Your task to perform on an android device: clear all cookies in the chrome app Image 0: 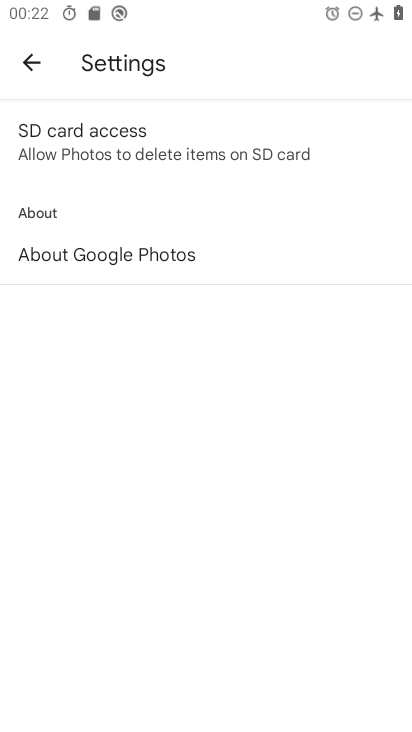
Step 0: press home button
Your task to perform on an android device: clear all cookies in the chrome app Image 1: 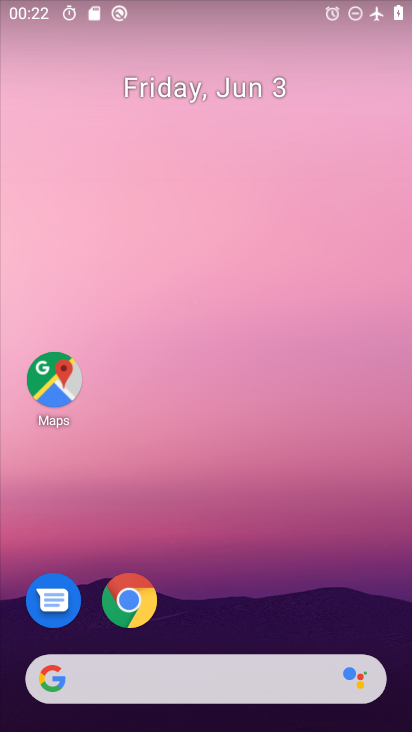
Step 1: click (131, 599)
Your task to perform on an android device: clear all cookies in the chrome app Image 2: 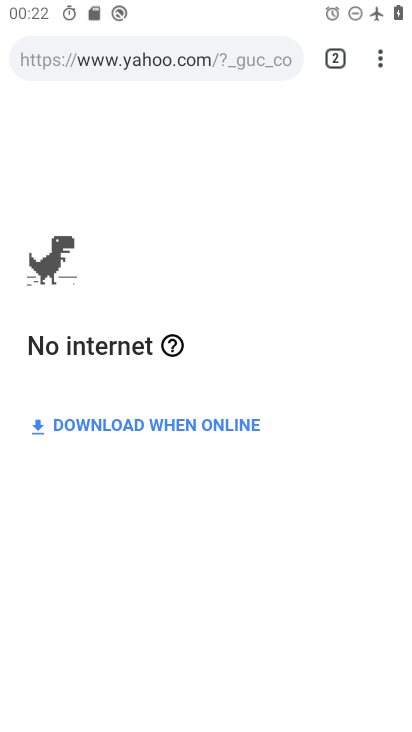
Step 2: click (379, 56)
Your task to perform on an android device: clear all cookies in the chrome app Image 3: 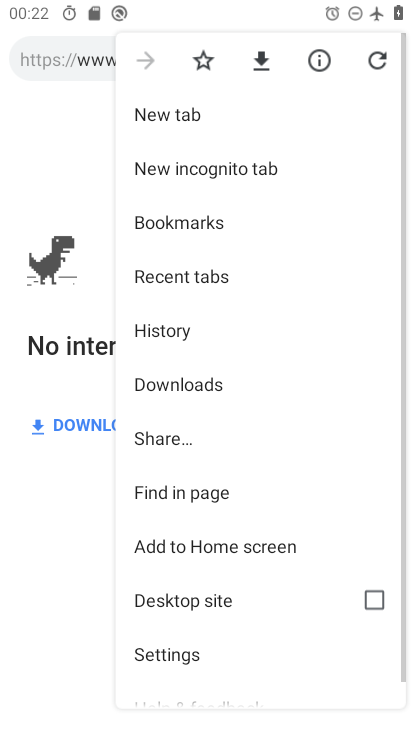
Step 3: click (177, 654)
Your task to perform on an android device: clear all cookies in the chrome app Image 4: 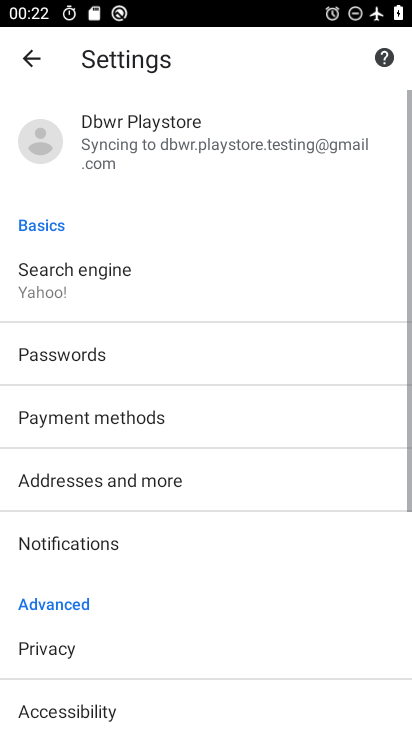
Step 4: click (89, 646)
Your task to perform on an android device: clear all cookies in the chrome app Image 5: 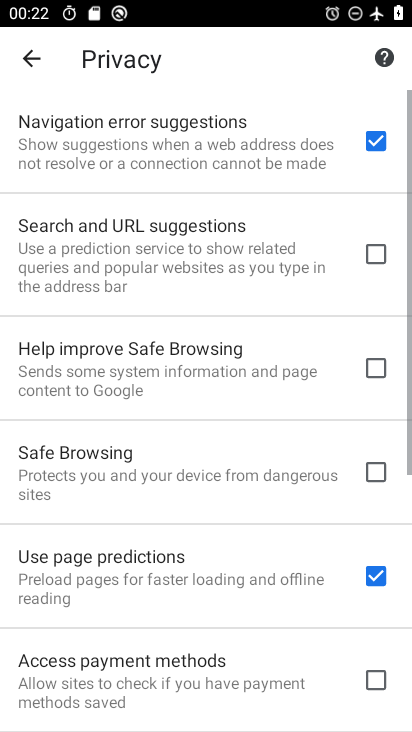
Step 5: drag from (205, 655) to (226, 23)
Your task to perform on an android device: clear all cookies in the chrome app Image 6: 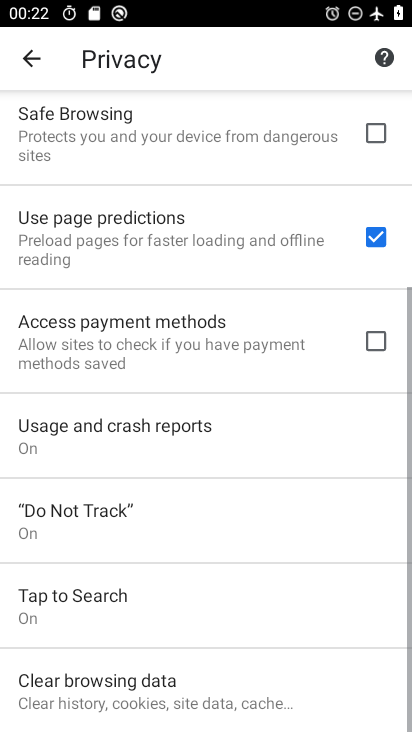
Step 6: click (135, 682)
Your task to perform on an android device: clear all cookies in the chrome app Image 7: 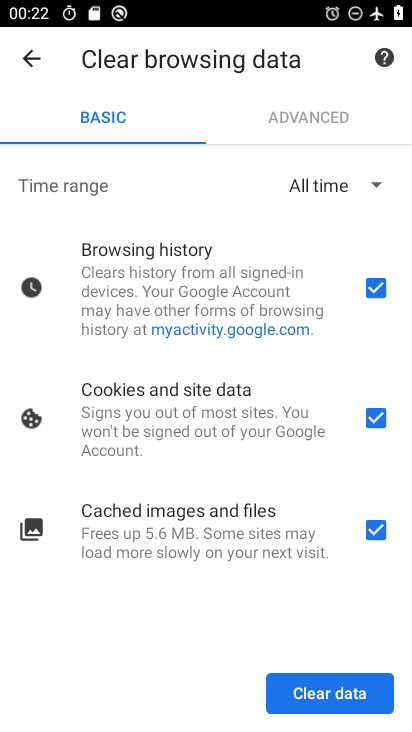
Step 7: click (375, 290)
Your task to perform on an android device: clear all cookies in the chrome app Image 8: 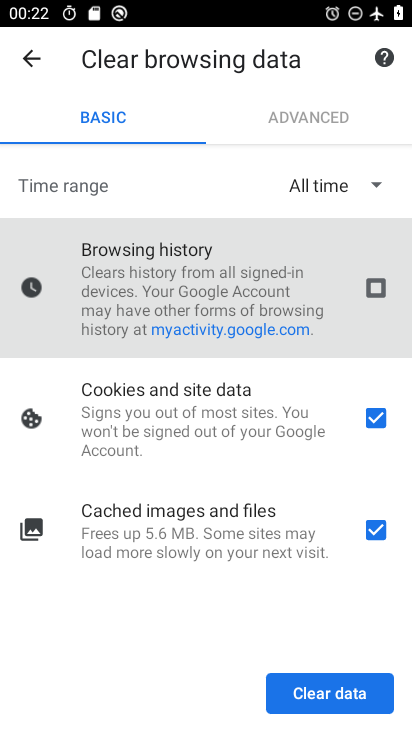
Step 8: click (372, 537)
Your task to perform on an android device: clear all cookies in the chrome app Image 9: 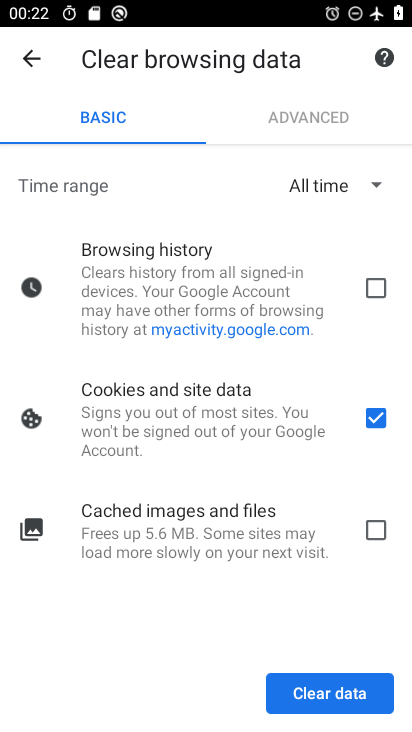
Step 9: click (345, 691)
Your task to perform on an android device: clear all cookies in the chrome app Image 10: 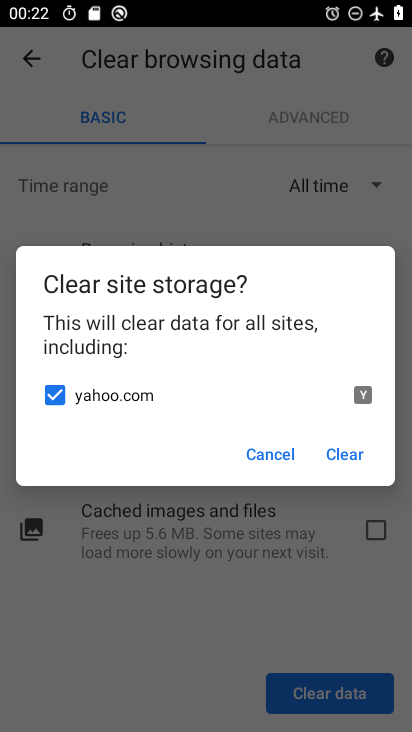
Step 10: click (345, 441)
Your task to perform on an android device: clear all cookies in the chrome app Image 11: 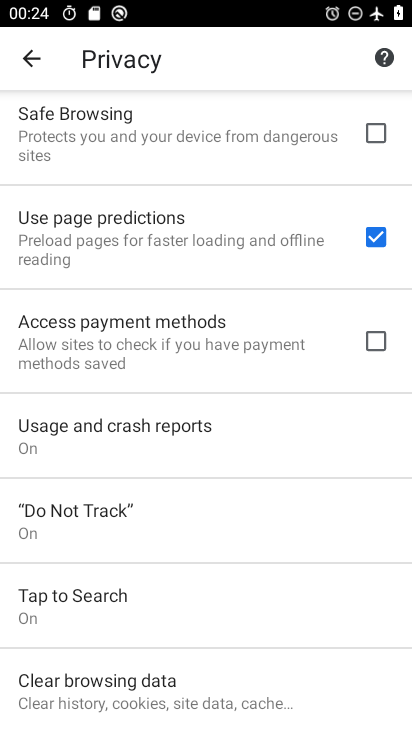
Step 11: task complete